Your task to perform on an android device: install app "McDonald's" Image 0: 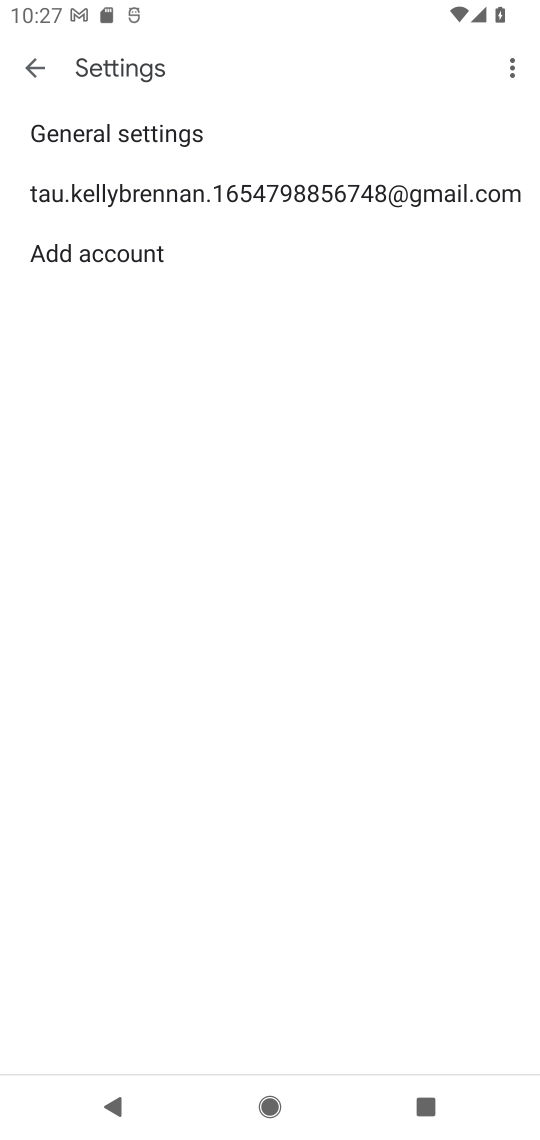
Step 0: press home button
Your task to perform on an android device: install app "McDonald's" Image 1: 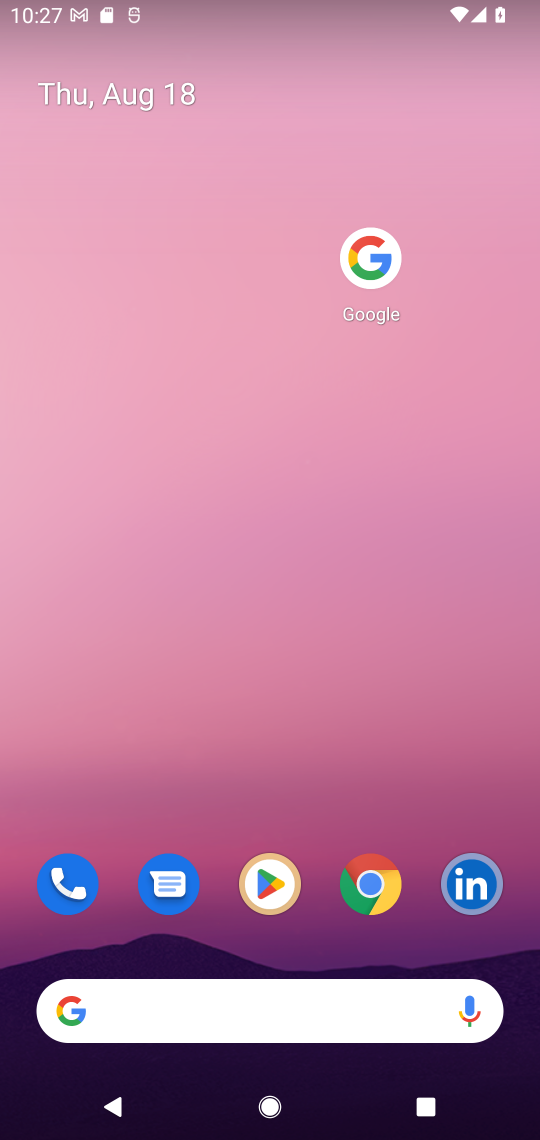
Step 1: click (271, 880)
Your task to perform on an android device: install app "McDonald's" Image 2: 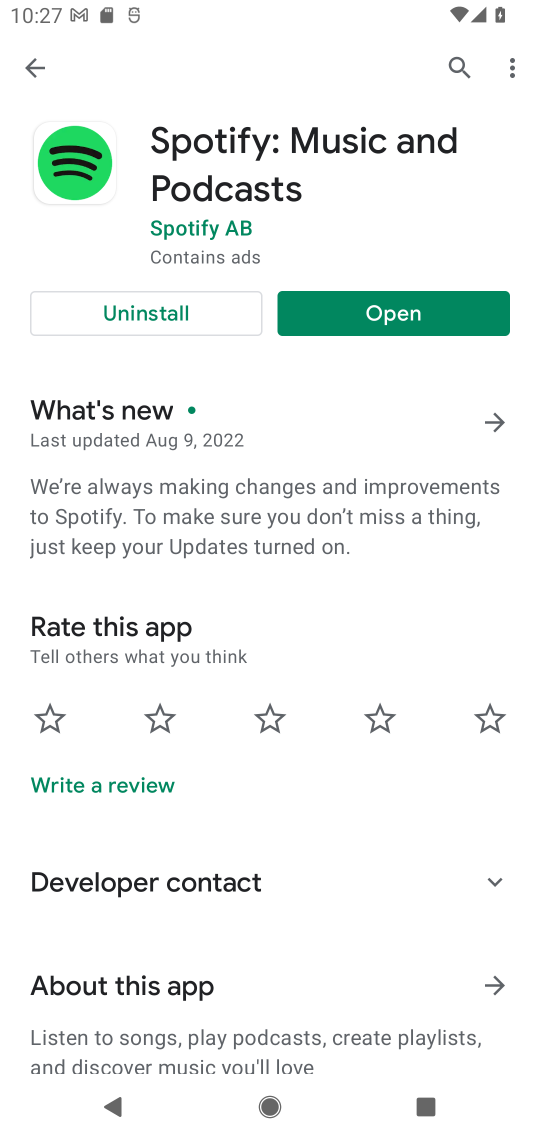
Step 2: click (435, 71)
Your task to perform on an android device: install app "McDonald's" Image 3: 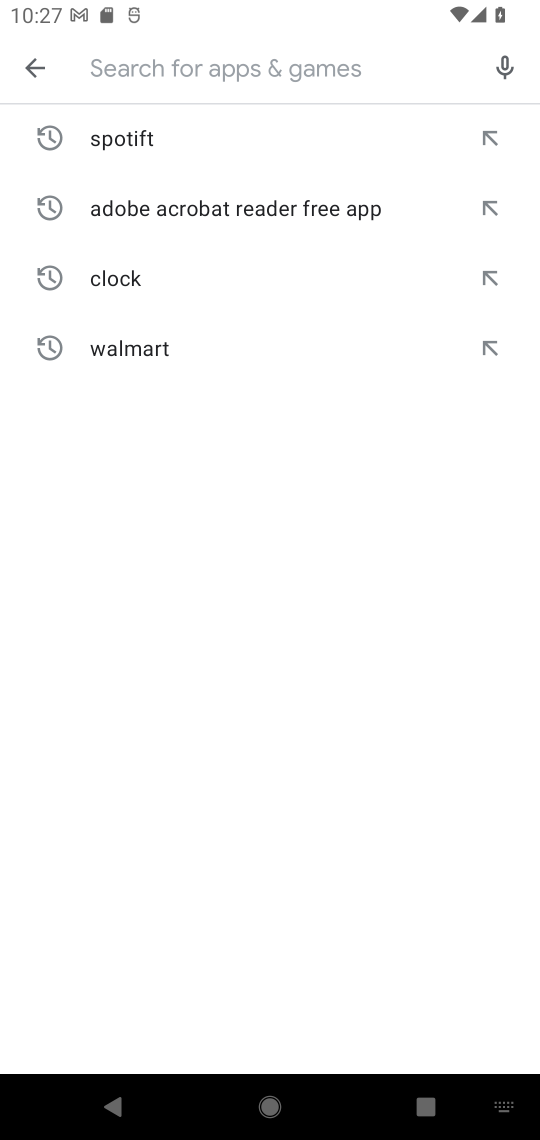
Step 3: type "mcdoland"
Your task to perform on an android device: install app "McDonald's" Image 4: 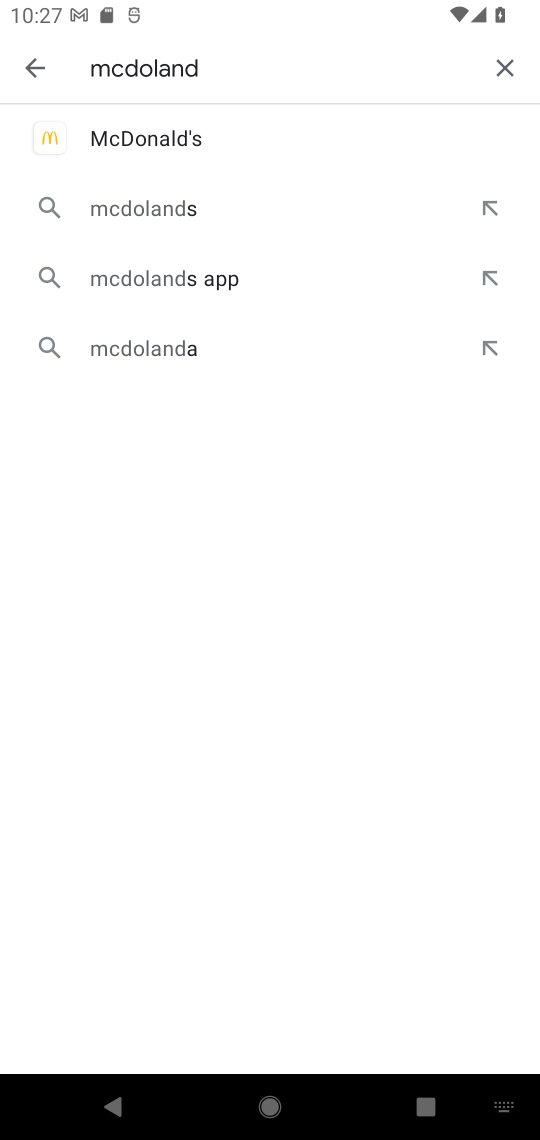
Step 4: click (215, 154)
Your task to perform on an android device: install app "McDonald's" Image 5: 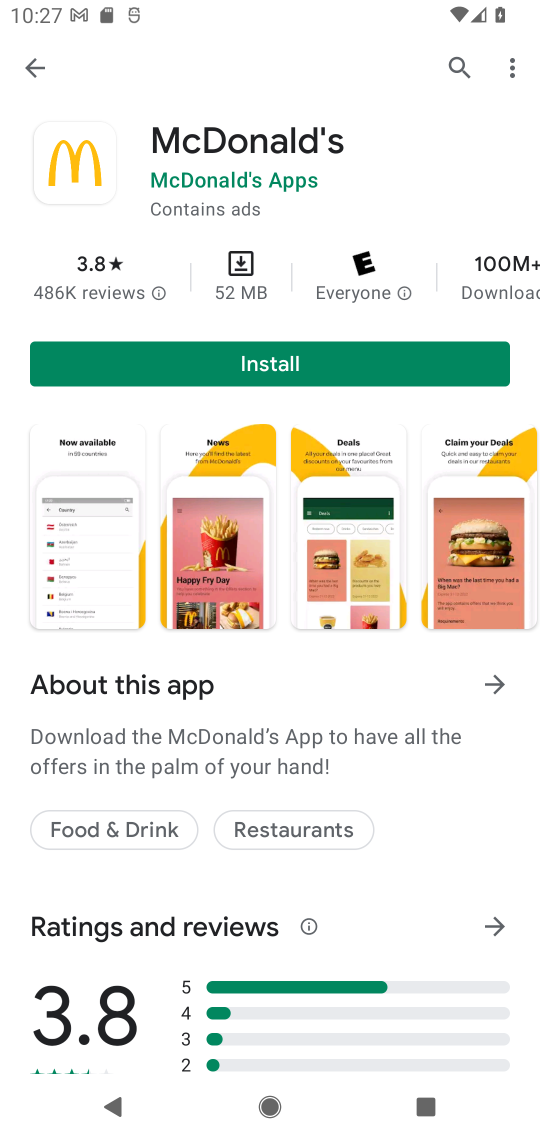
Step 5: click (301, 374)
Your task to perform on an android device: install app "McDonald's" Image 6: 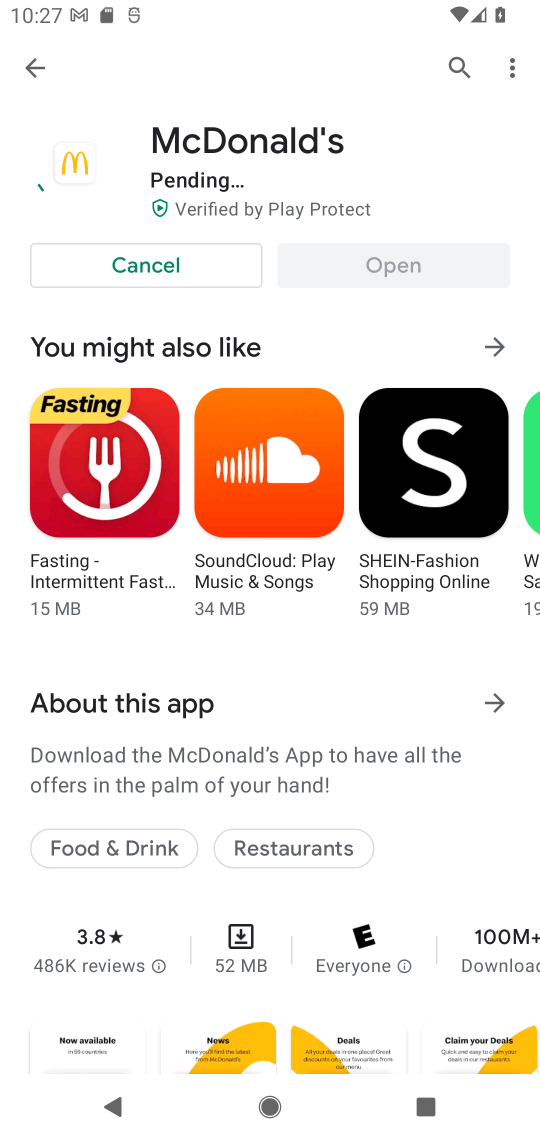
Step 6: task complete